Your task to perform on an android device: How much does a 3 bedroom apartment rent for in Atlanta? Image 0: 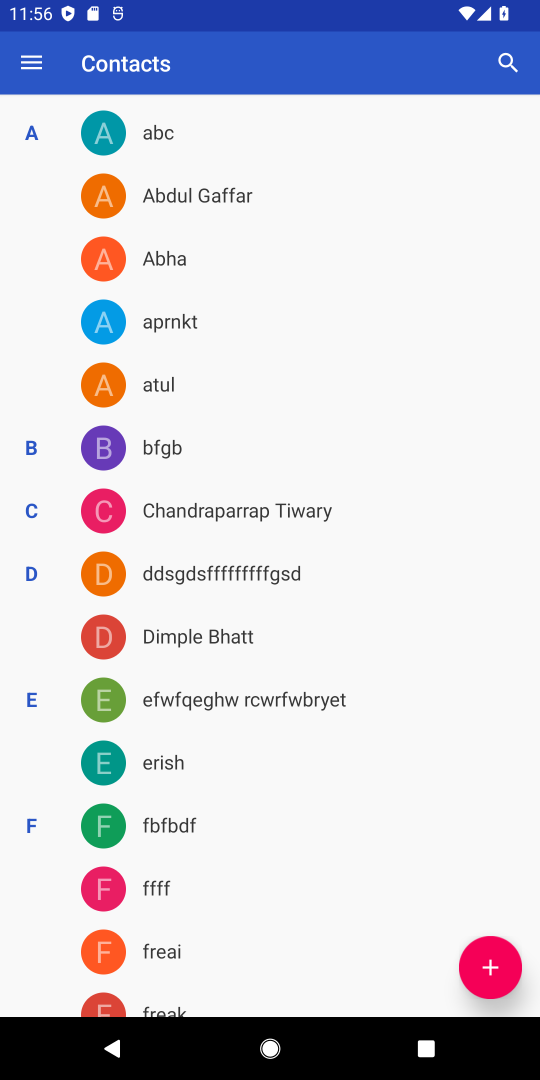
Step 0: press home button
Your task to perform on an android device: How much does a 3 bedroom apartment rent for in Atlanta? Image 1: 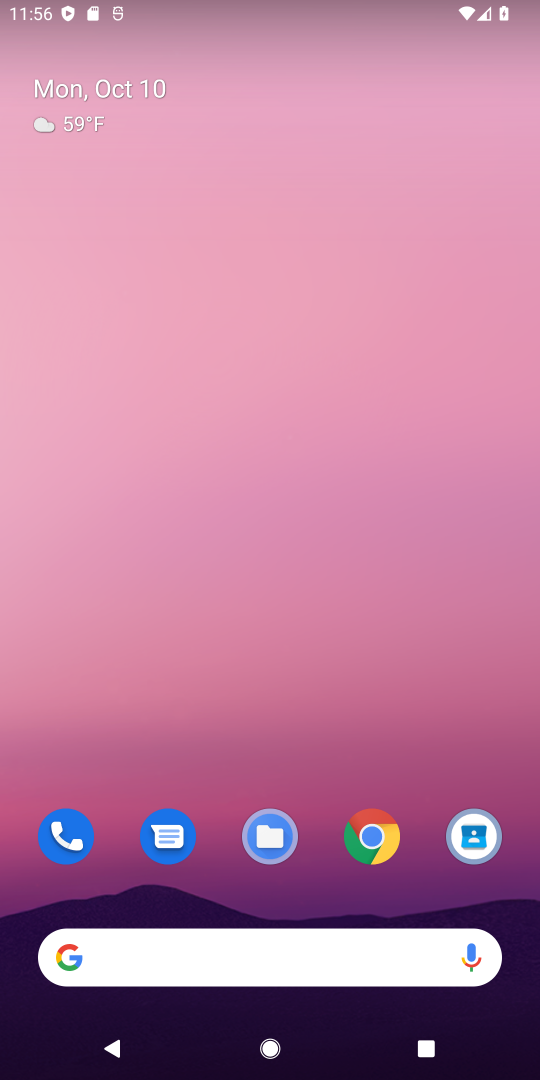
Step 1: click (379, 849)
Your task to perform on an android device: How much does a 3 bedroom apartment rent for in Atlanta? Image 2: 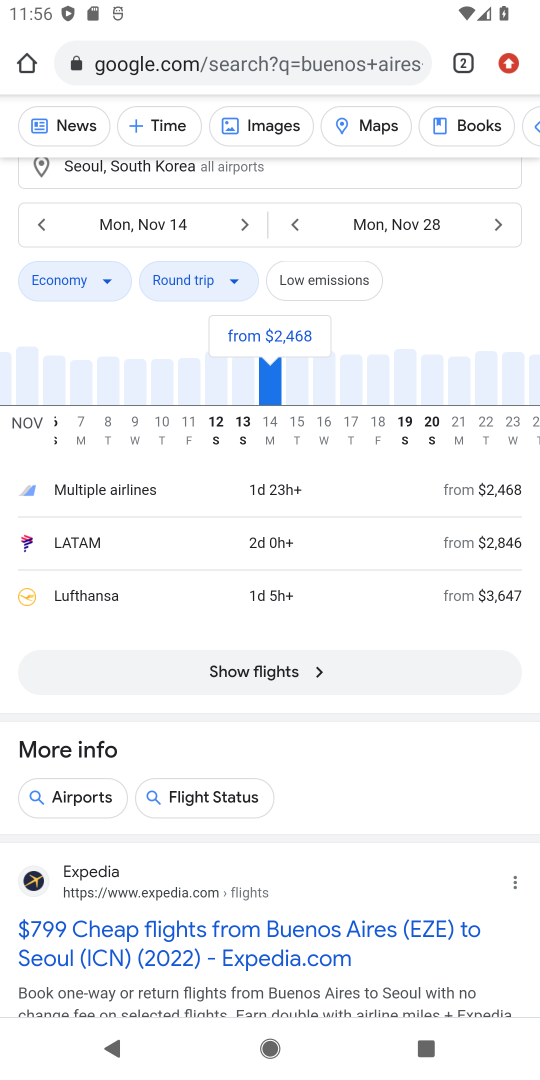
Step 2: drag from (298, 1074) to (415, 779)
Your task to perform on an android device: How much does a 3 bedroom apartment rent for in Atlanta? Image 3: 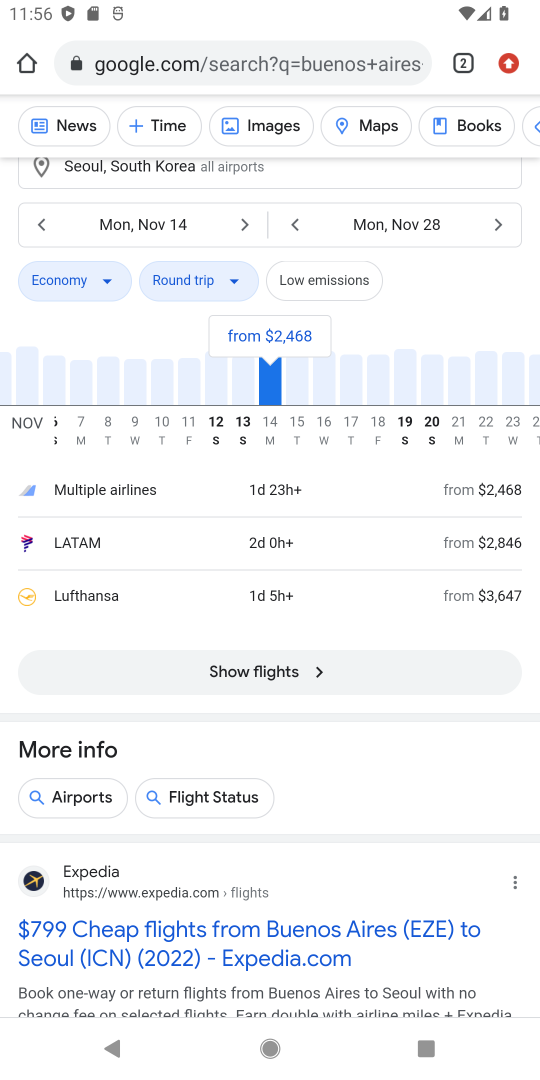
Step 3: click (217, 55)
Your task to perform on an android device: How much does a 3 bedroom apartment rent for in Atlanta? Image 4: 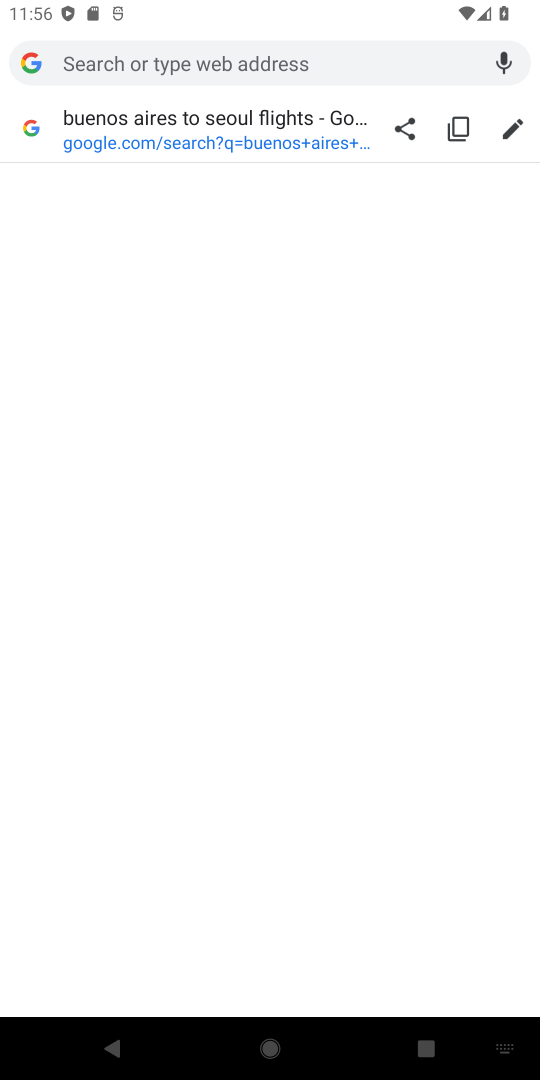
Step 4: type "3 bedroom apartment rent for in Atlanta"
Your task to perform on an android device: How much does a 3 bedroom apartment rent for in Atlanta? Image 5: 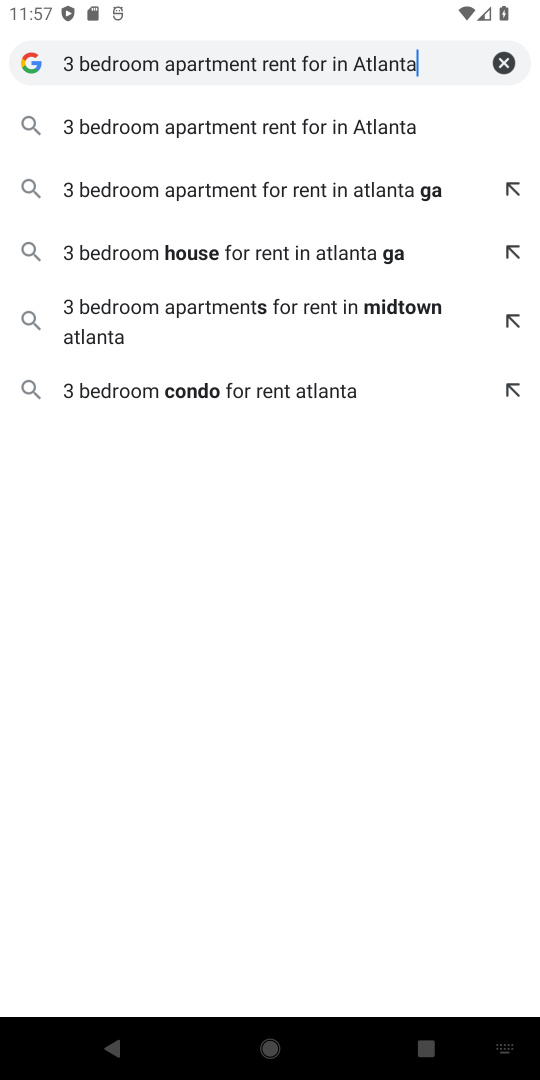
Step 5: click (312, 127)
Your task to perform on an android device: How much does a 3 bedroom apartment rent for in Atlanta? Image 6: 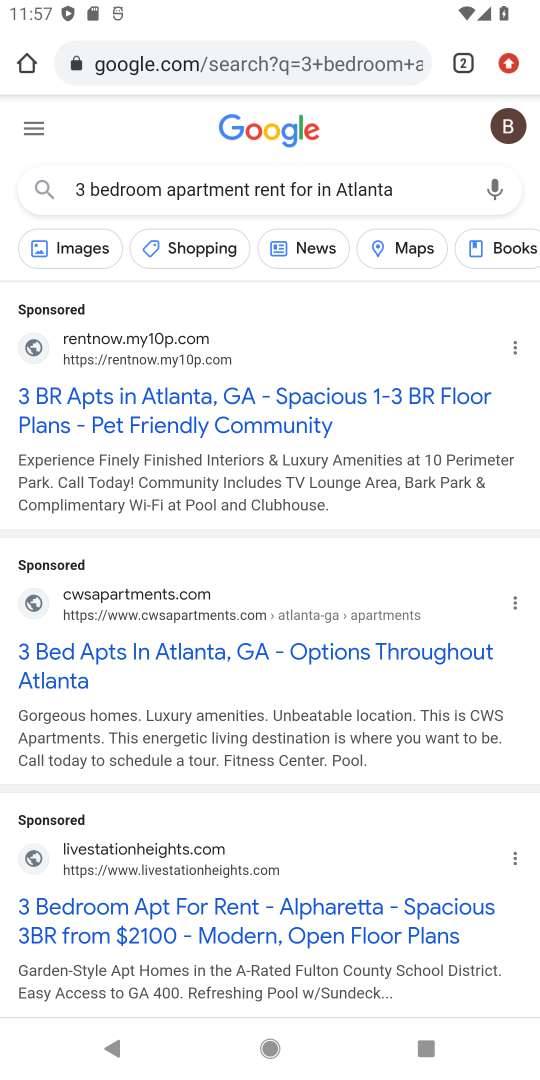
Step 6: drag from (348, 780) to (255, 251)
Your task to perform on an android device: How much does a 3 bedroom apartment rent for in Atlanta? Image 7: 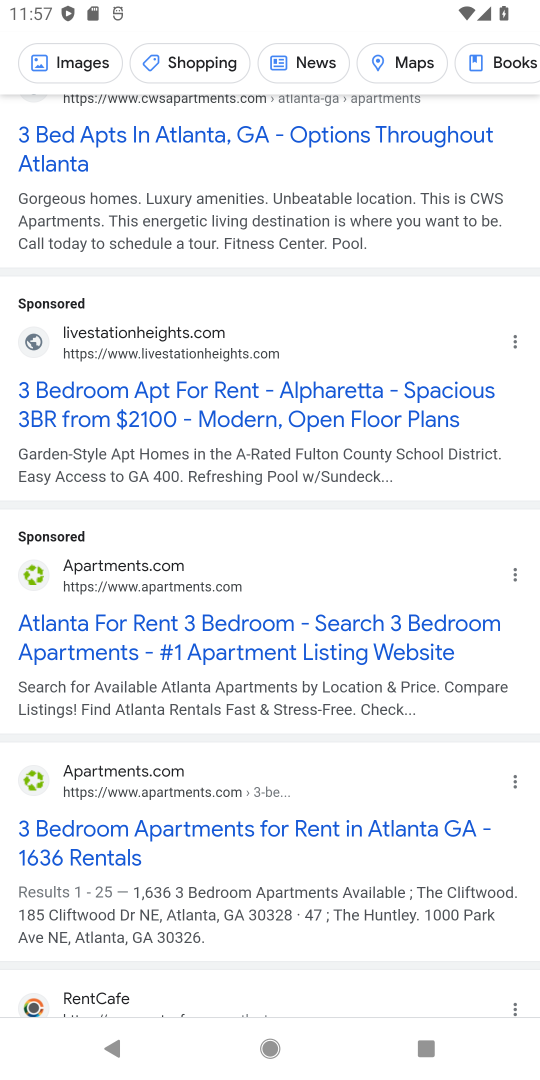
Step 7: click (123, 846)
Your task to perform on an android device: How much does a 3 bedroom apartment rent for in Atlanta? Image 8: 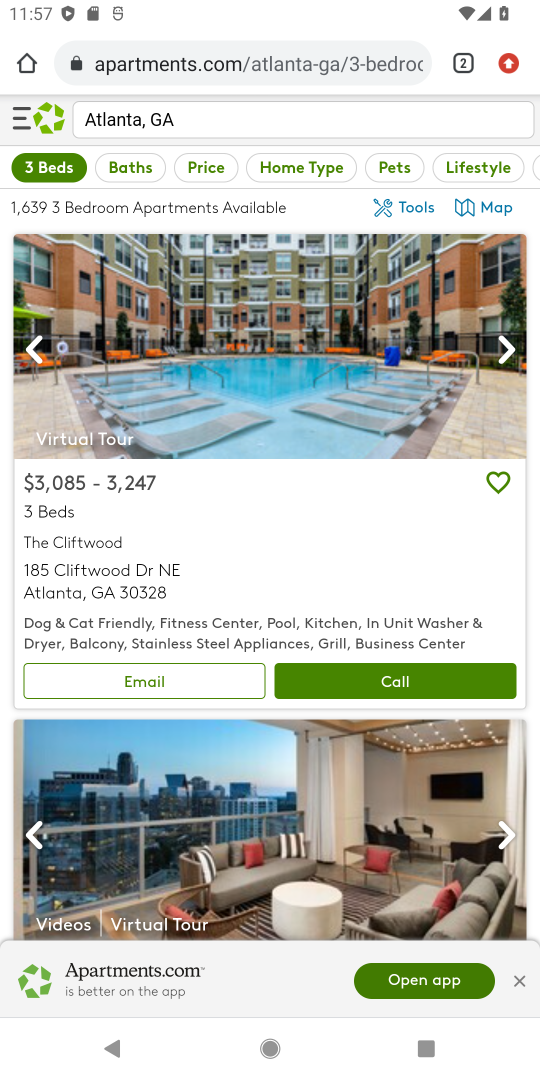
Step 8: task complete